Your task to perform on an android device: Show me recent news Image 0: 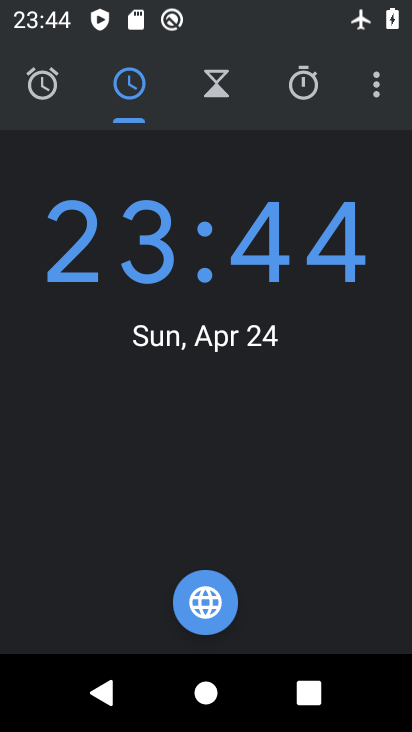
Step 0: press home button
Your task to perform on an android device: Show me recent news Image 1: 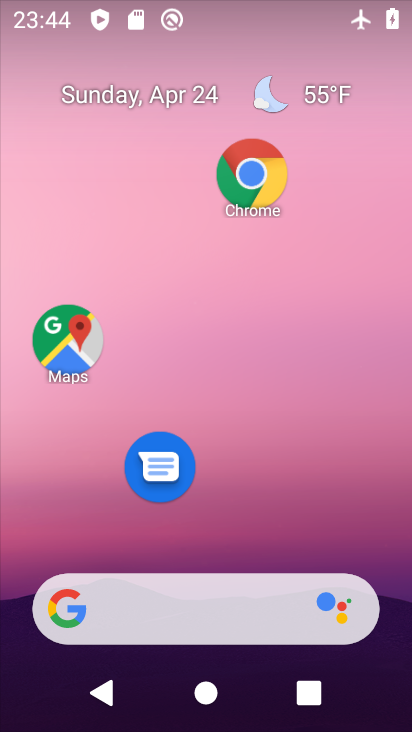
Step 1: drag from (248, 485) to (239, 68)
Your task to perform on an android device: Show me recent news Image 2: 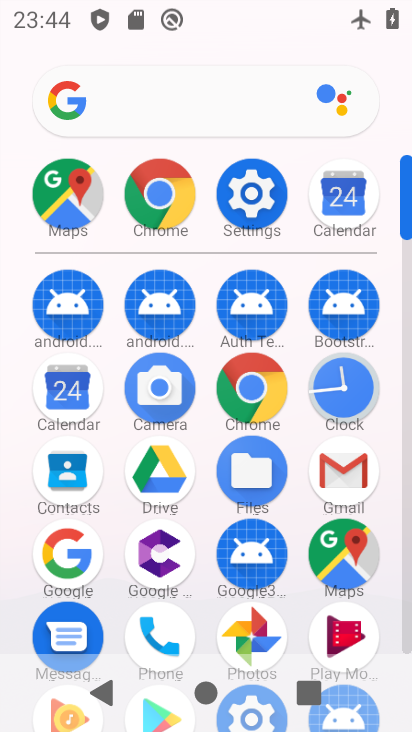
Step 2: click (259, 638)
Your task to perform on an android device: Show me recent news Image 3: 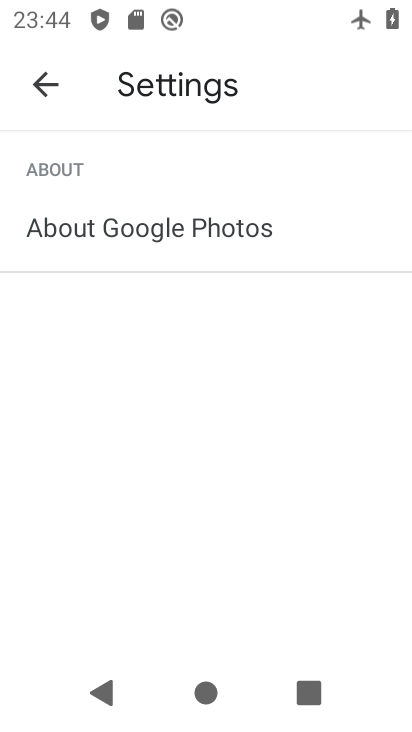
Step 3: press back button
Your task to perform on an android device: Show me recent news Image 4: 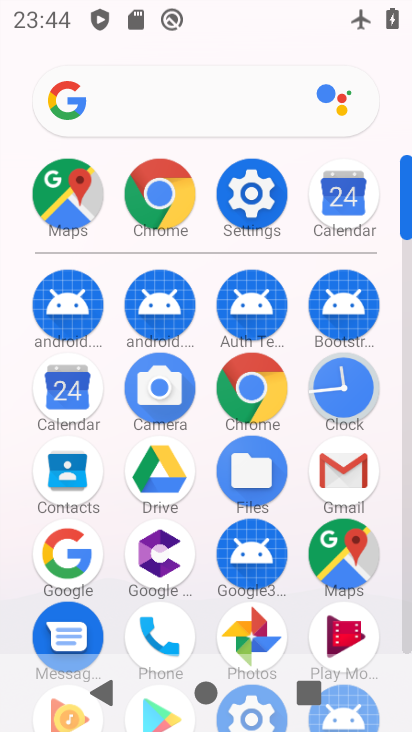
Step 4: click (69, 561)
Your task to perform on an android device: Show me recent news Image 5: 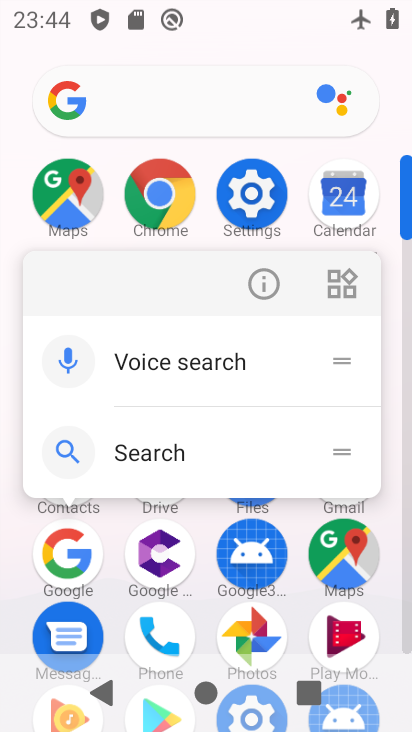
Step 5: click (68, 558)
Your task to perform on an android device: Show me recent news Image 6: 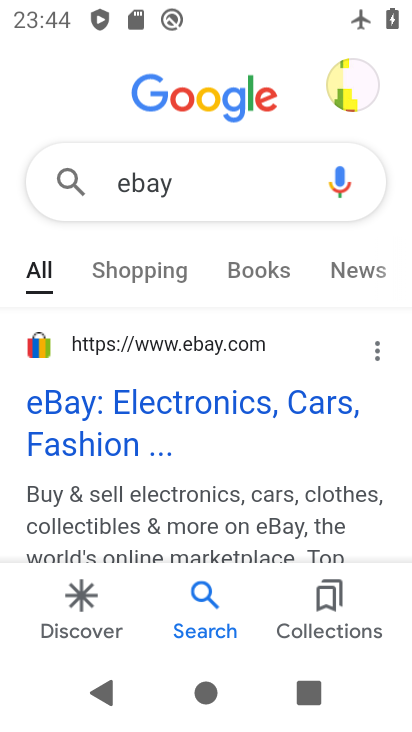
Step 6: click (202, 192)
Your task to perform on an android device: Show me recent news Image 7: 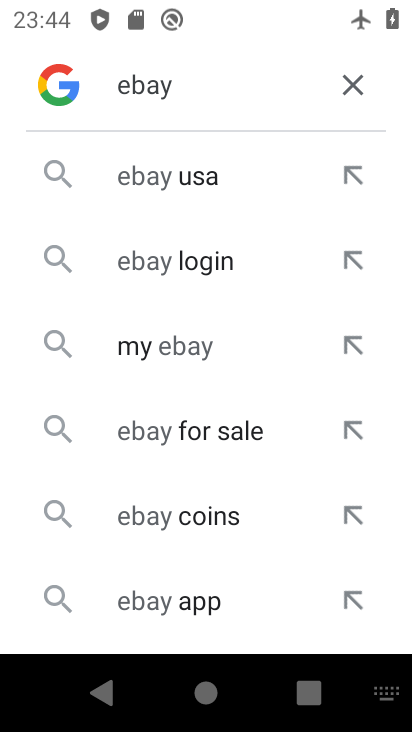
Step 7: click (355, 91)
Your task to perform on an android device: Show me recent news Image 8: 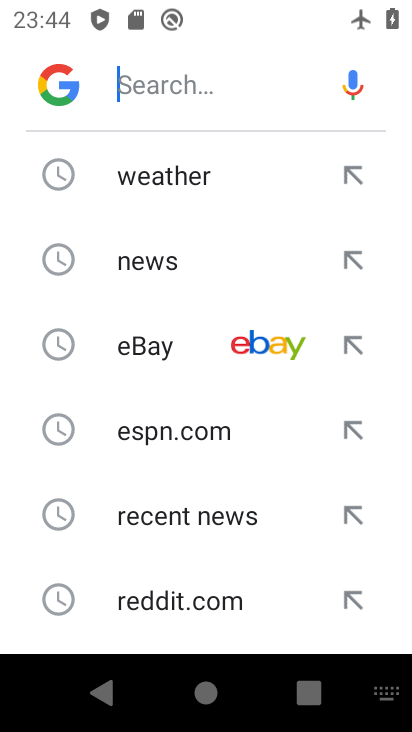
Step 8: click (178, 265)
Your task to perform on an android device: Show me recent news Image 9: 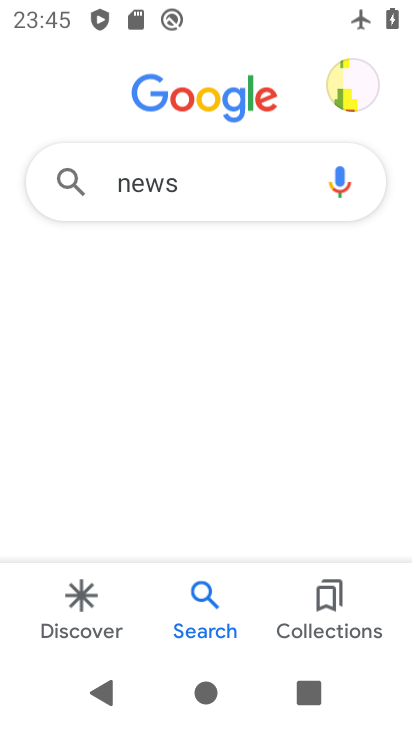
Step 9: task complete